Your task to perform on an android device: Go to internet settings Image 0: 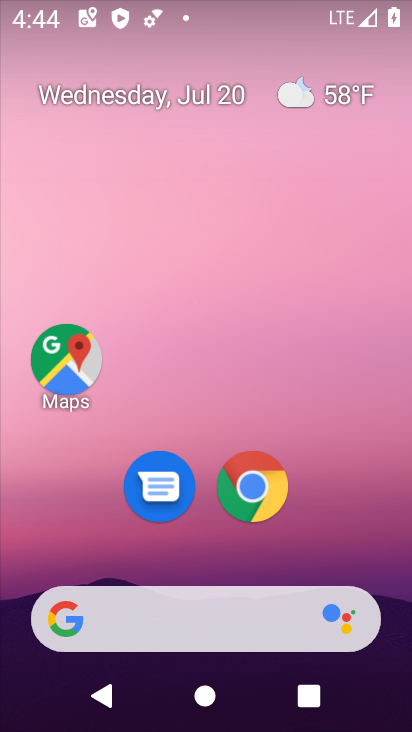
Step 0: drag from (162, 515) to (229, 16)
Your task to perform on an android device: Go to internet settings Image 1: 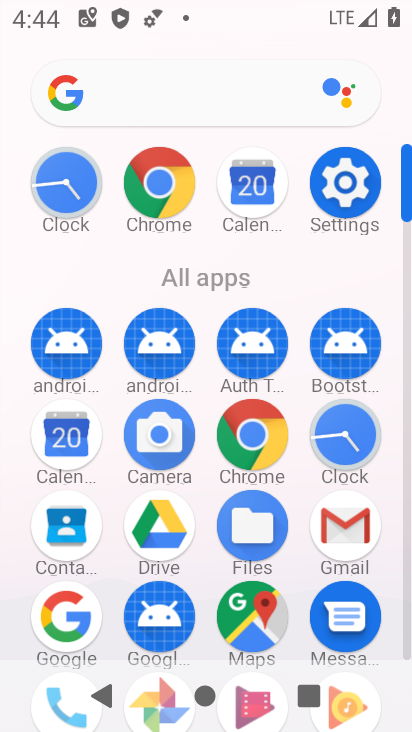
Step 1: click (353, 180)
Your task to perform on an android device: Go to internet settings Image 2: 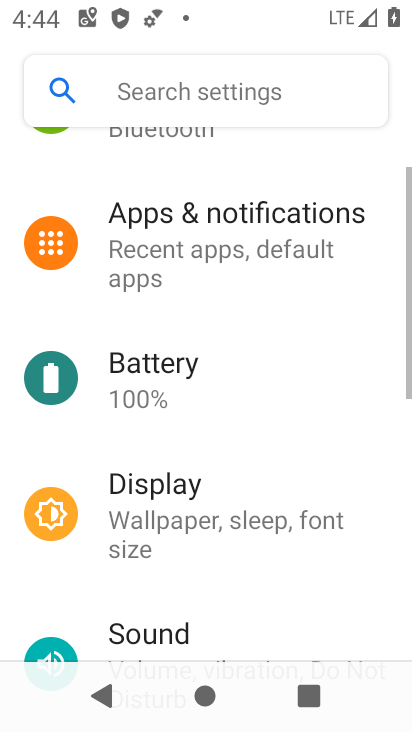
Step 2: drag from (262, 229) to (217, 731)
Your task to perform on an android device: Go to internet settings Image 3: 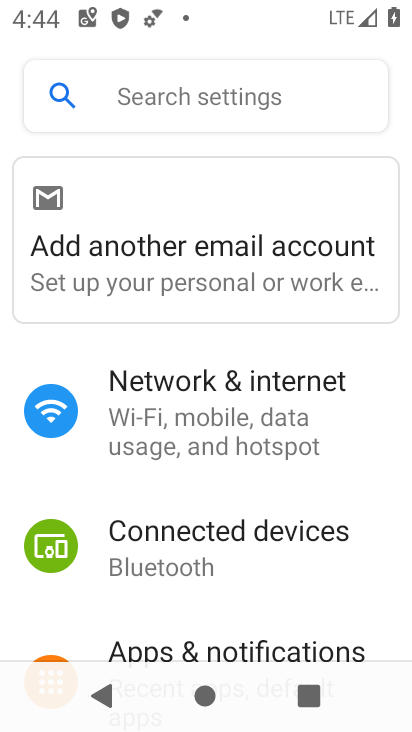
Step 3: click (224, 418)
Your task to perform on an android device: Go to internet settings Image 4: 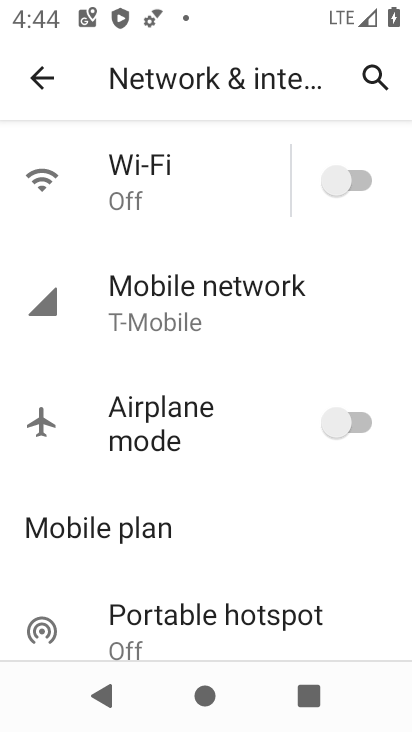
Step 4: task complete